Your task to perform on an android device: toggle location history Image 0: 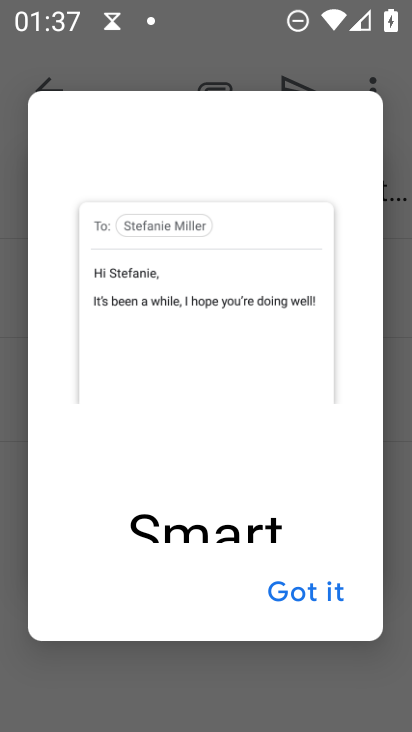
Step 0: press home button
Your task to perform on an android device: toggle location history Image 1: 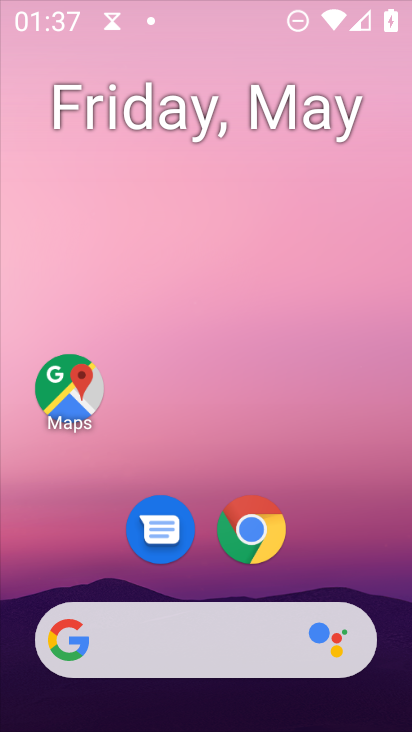
Step 1: drag from (217, 580) to (265, 187)
Your task to perform on an android device: toggle location history Image 2: 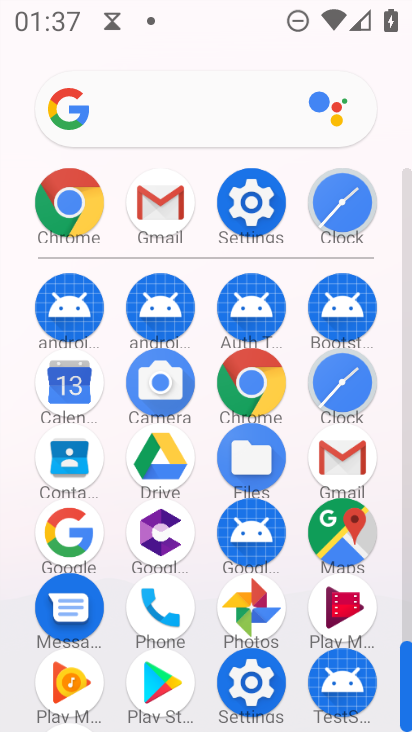
Step 2: click (225, 196)
Your task to perform on an android device: toggle location history Image 3: 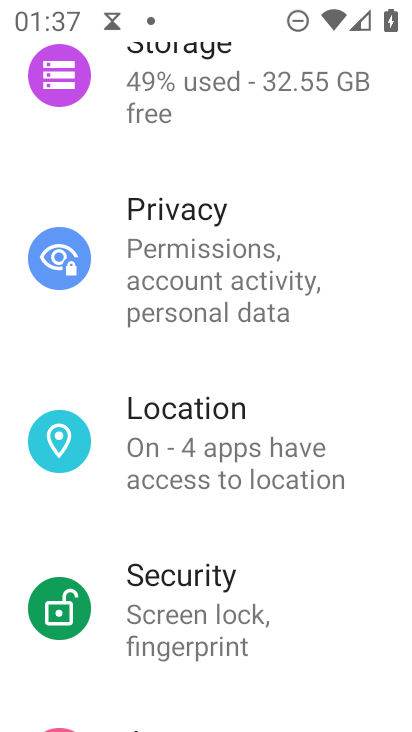
Step 3: click (181, 453)
Your task to perform on an android device: toggle location history Image 4: 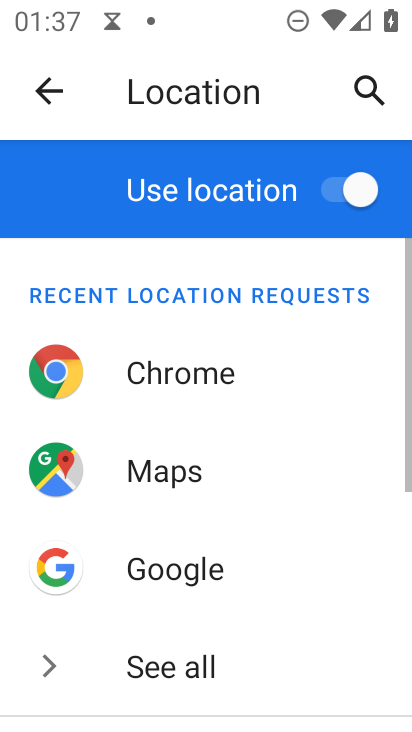
Step 4: drag from (227, 591) to (319, 155)
Your task to perform on an android device: toggle location history Image 5: 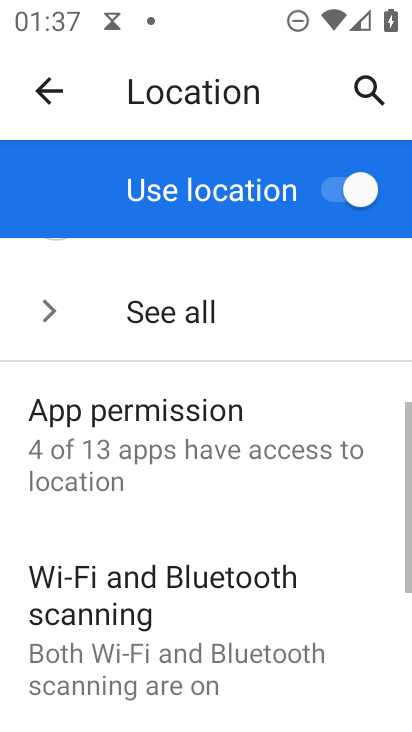
Step 5: drag from (165, 584) to (286, 223)
Your task to perform on an android device: toggle location history Image 6: 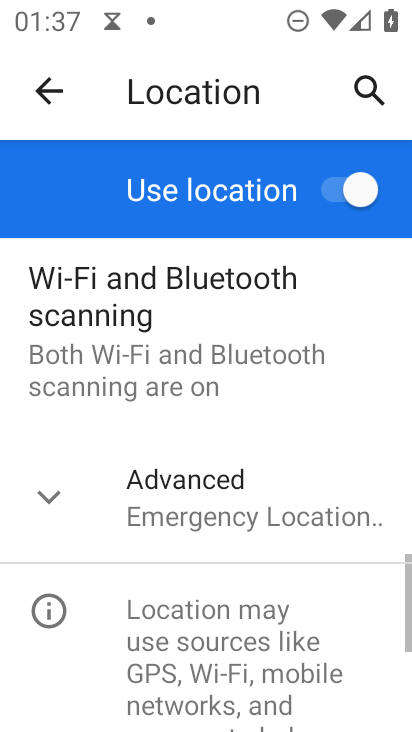
Step 6: click (184, 528)
Your task to perform on an android device: toggle location history Image 7: 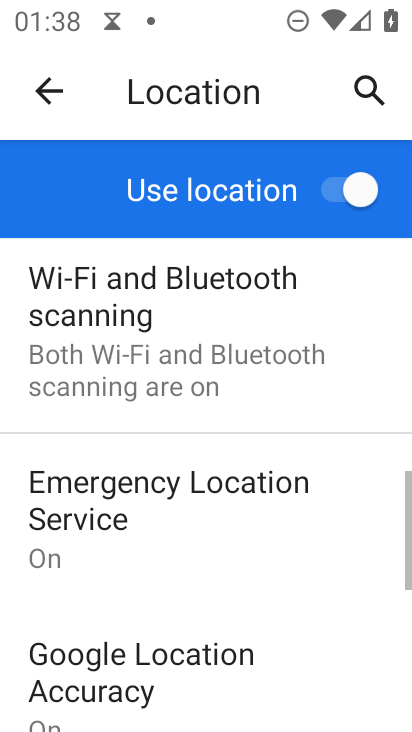
Step 7: drag from (235, 604) to (275, 458)
Your task to perform on an android device: toggle location history Image 8: 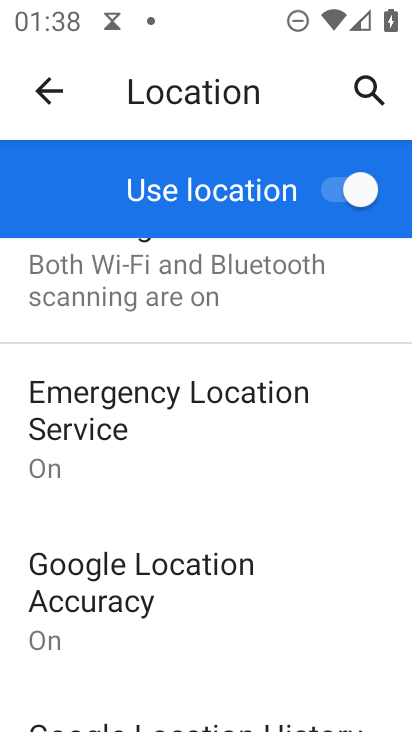
Step 8: drag from (220, 644) to (277, 347)
Your task to perform on an android device: toggle location history Image 9: 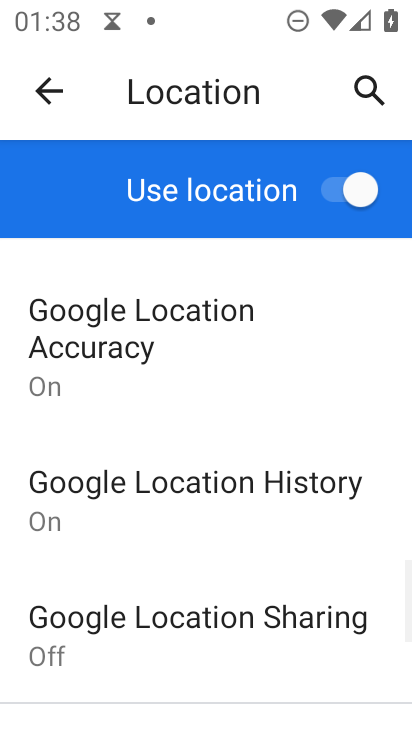
Step 9: click (220, 477)
Your task to perform on an android device: toggle location history Image 10: 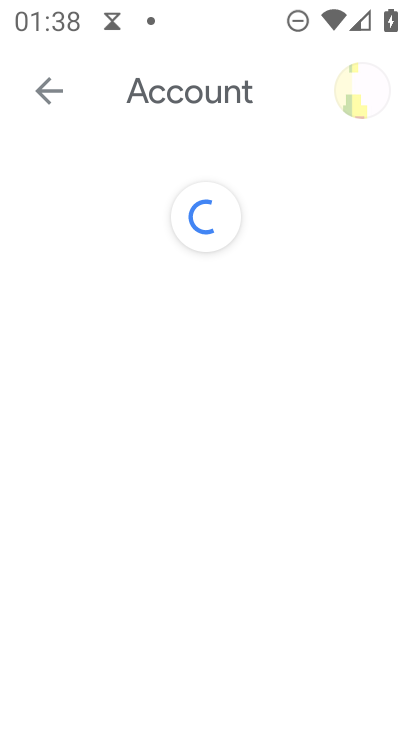
Step 10: drag from (242, 649) to (321, 118)
Your task to perform on an android device: toggle location history Image 11: 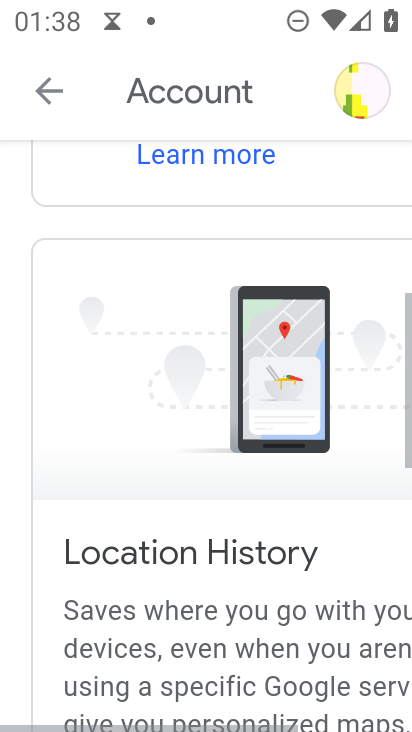
Step 11: drag from (239, 591) to (321, 147)
Your task to perform on an android device: toggle location history Image 12: 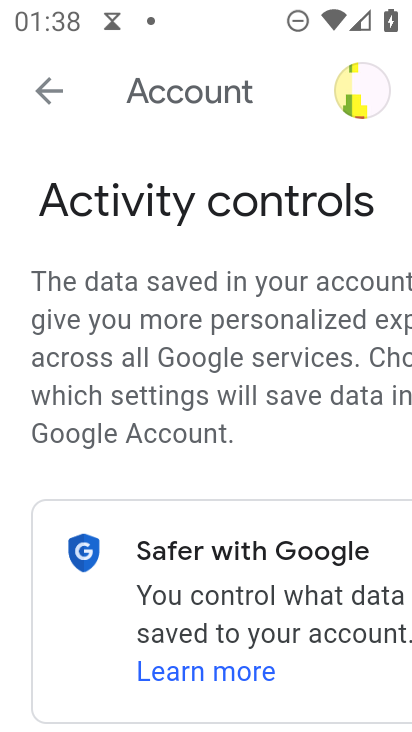
Step 12: drag from (272, 585) to (305, 100)
Your task to perform on an android device: toggle location history Image 13: 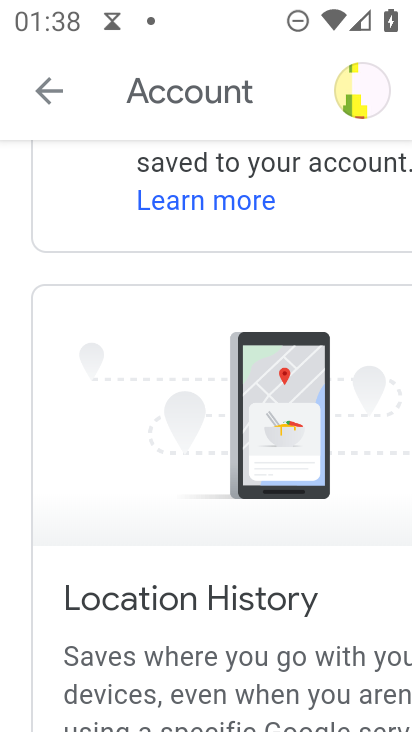
Step 13: drag from (275, 603) to (333, 133)
Your task to perform on an android device: toggle location history Image 14: 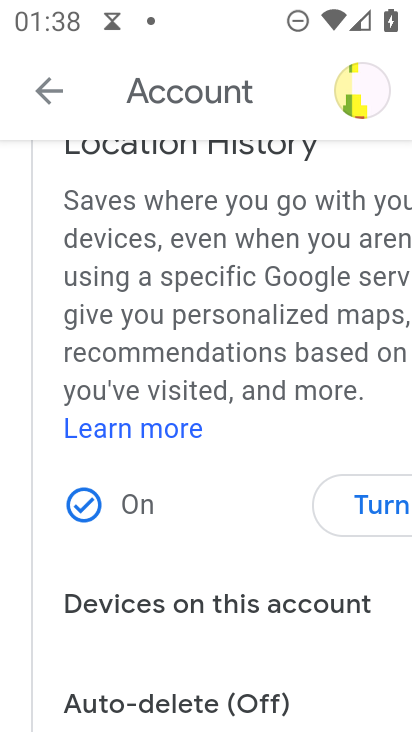
Step 14: click (366, 492)
Your task to perform on an android device: toggle location history Image 15: 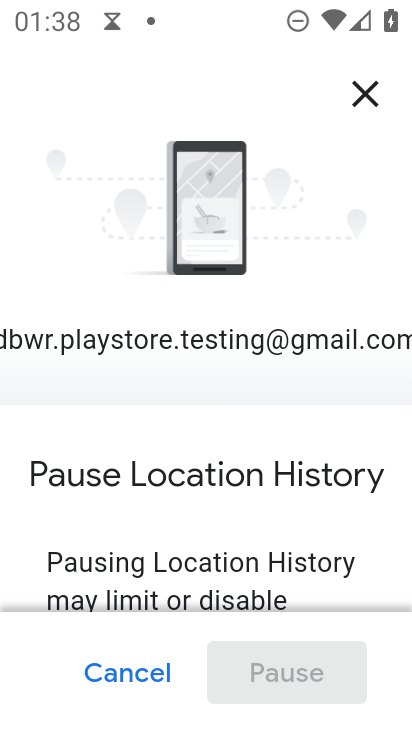
Step 15: click (84, 670)
Your task to perform on an android device: toggle location history Image 16: 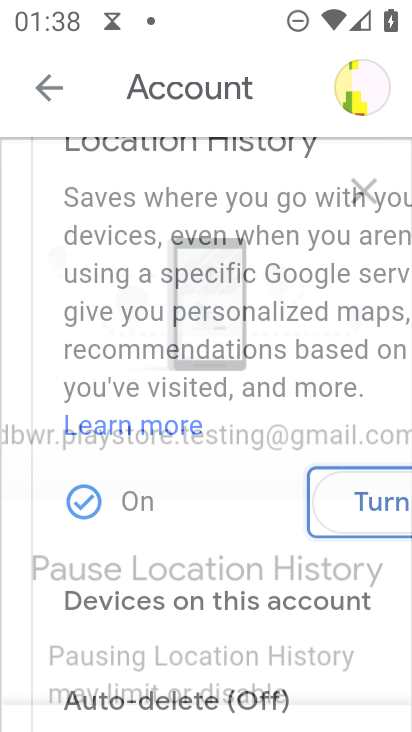
Step 16: task complete